Your task to perform on an android device: turn off location Image 0: 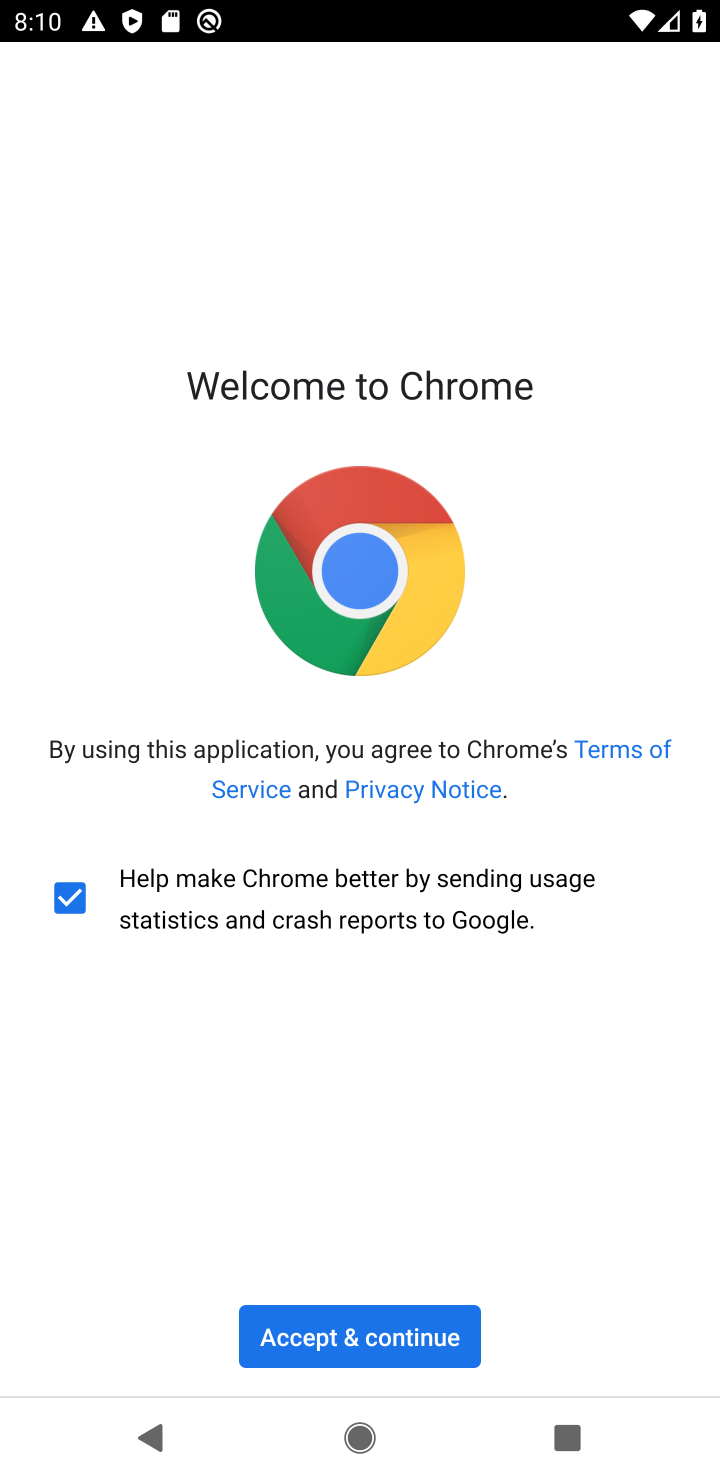
Step 0: press back button
Your task to perform on an android device: turn off location Image 1: 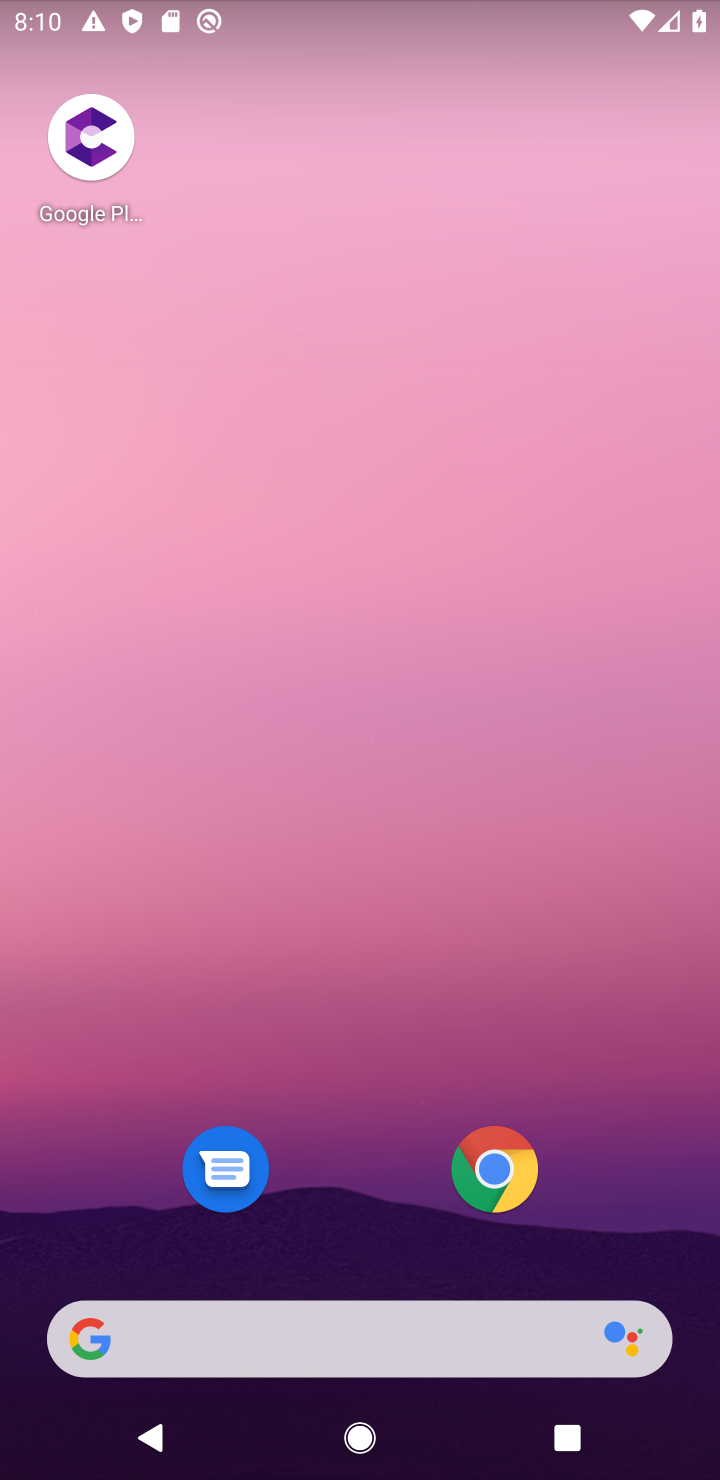
Step 1: drag from (356, 1176) to (501, 15)
Your task to perform on an android device: turn off location Image 2: 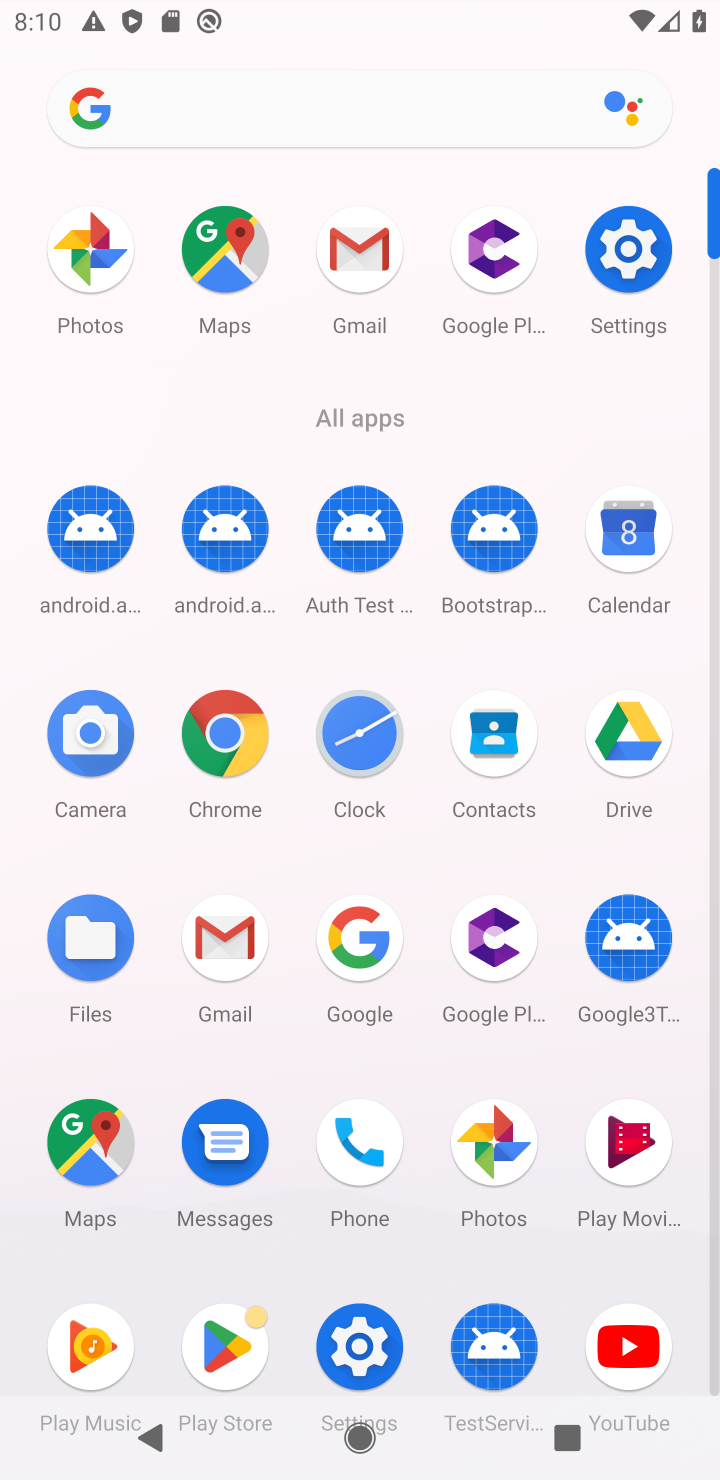
Step 2: click (647, 221)
Your task to perform on an android device: turn off location Image 3: 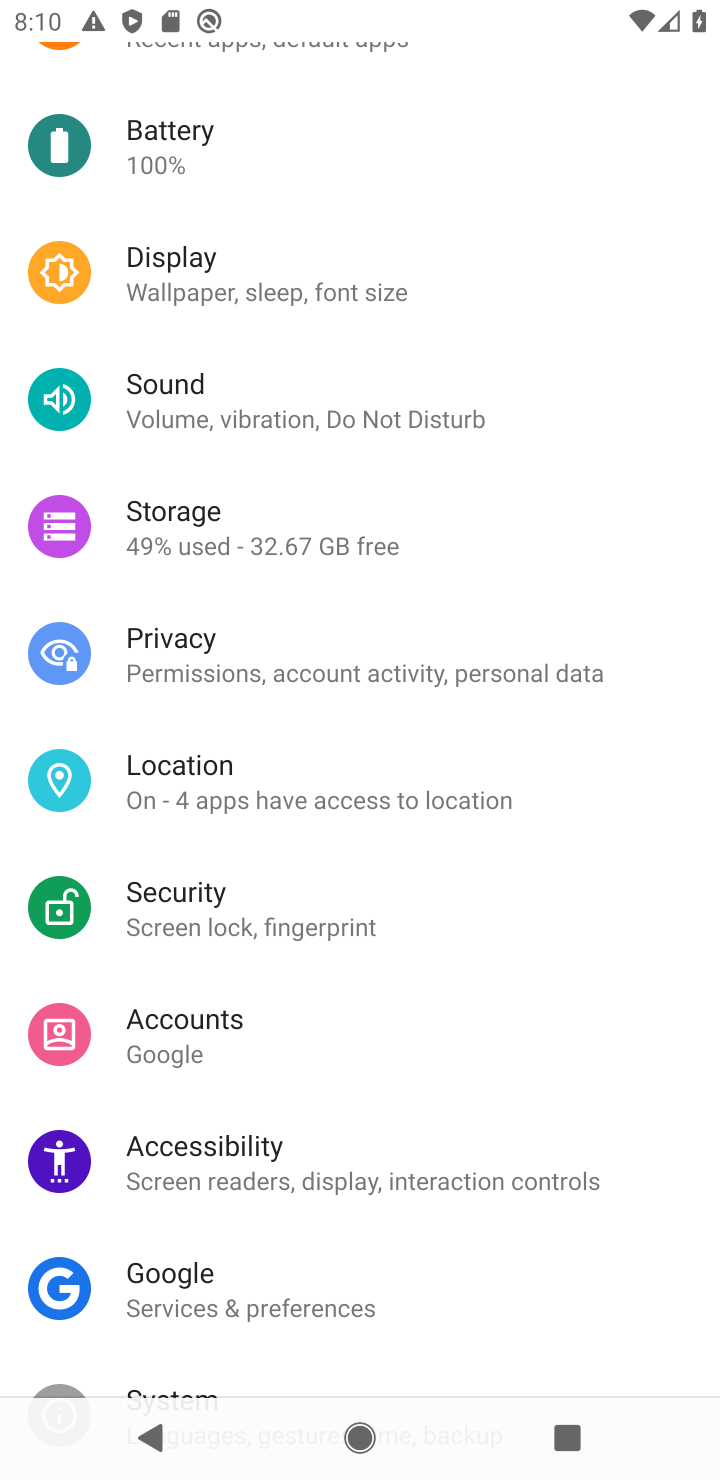
Step 3: click (243, 778)
Your task to perform on an android device: turn off location Image 4: 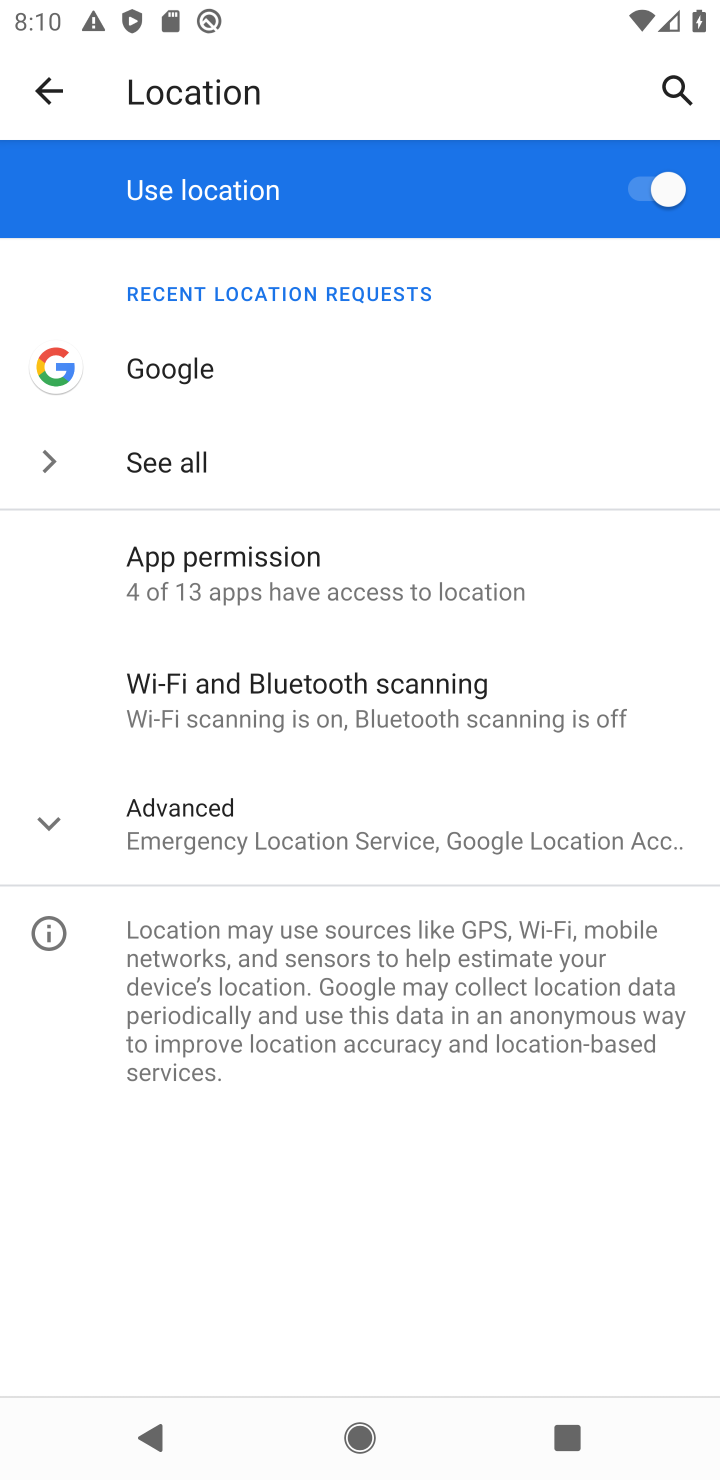
Step 4: click (665, 185)
Your task to perform on an android device: turn off location Image 5: 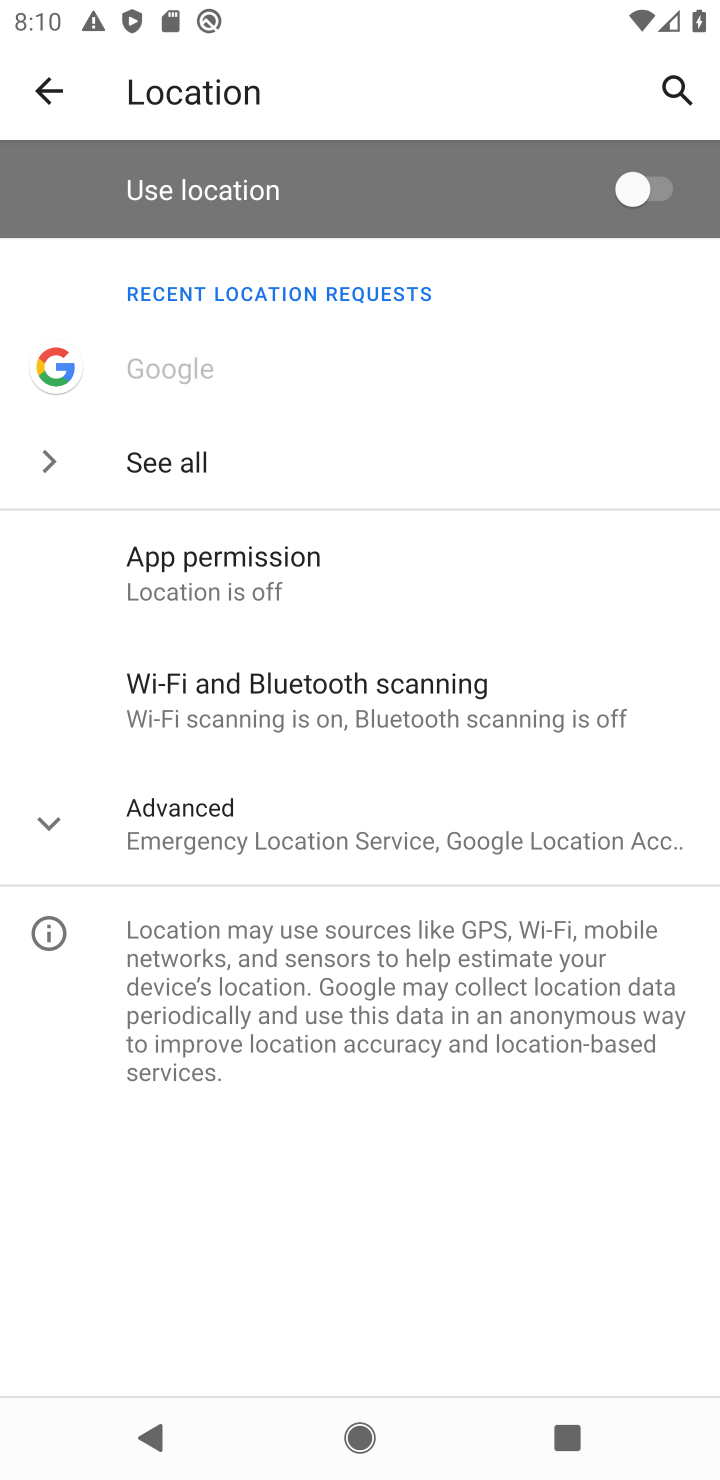
Step 5: task complete